Your task to perform on an android device: What is the recent news? Image 0: 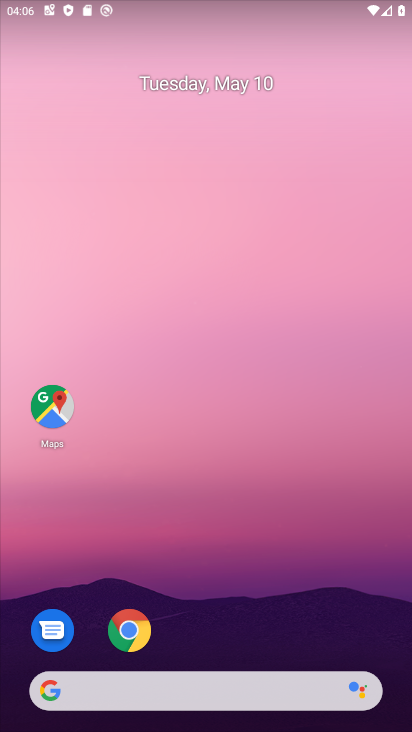
Step 0: click (135, 701)
Your task to perform on an android device: What is the recent news? Image 1: 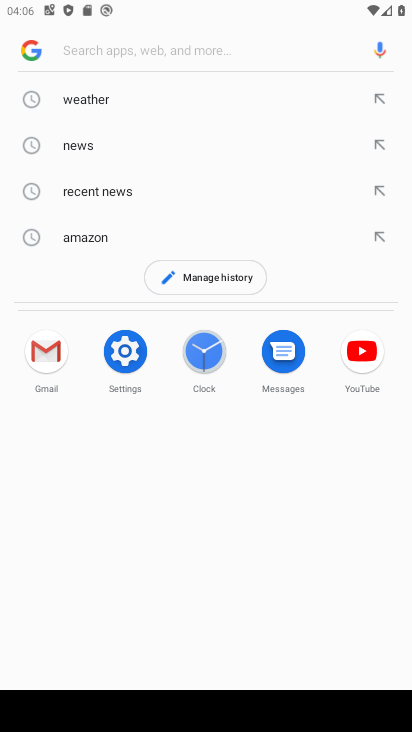
Step 1: click (39, 48)
Your task to perform on an android device: What is the recent news? Image 2: 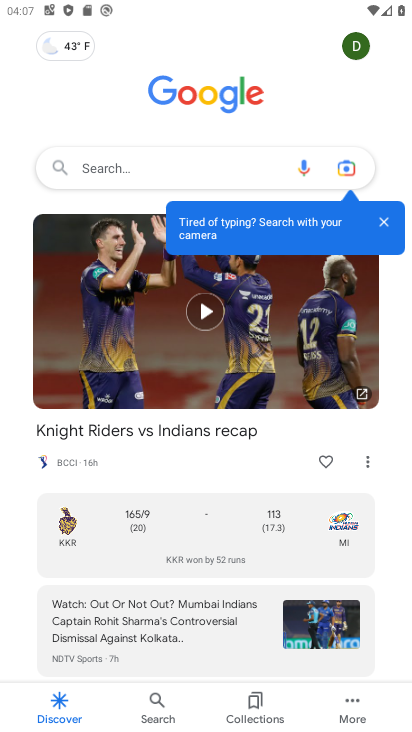
Step 2: task complete